Your task to perform on an android device: Open the calendar and show me this week's events? Image 0: 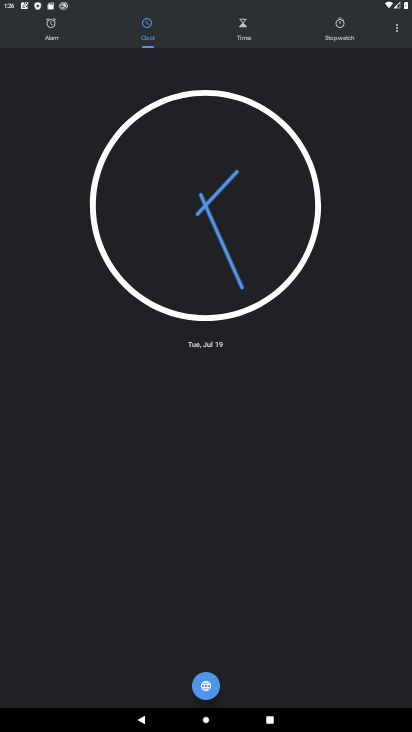
Step 0: press home button
Your task to perform on an android device: Open the calendar and show me this week's events? Image 1: 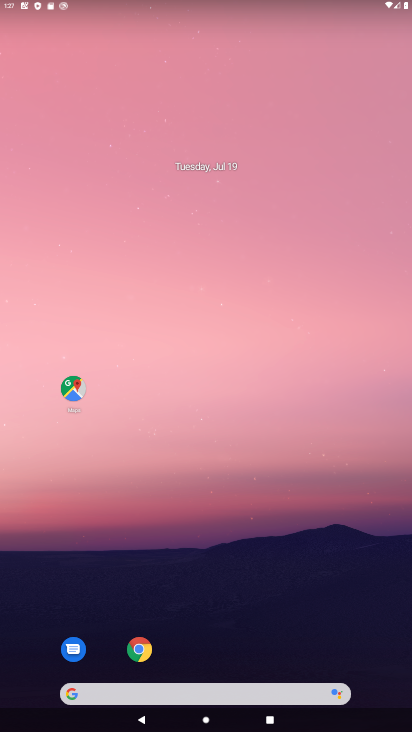
Step 1: drag from (208, 469) to (309, 34)
Your task to perform on an android device: Open the calendar and show me this week's events? Image 2: 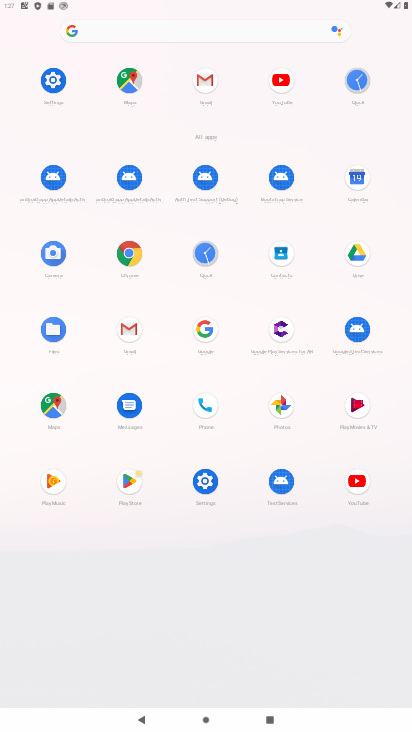
Step 2: click (360, 177)
Your task to perform on an android device: Open the calendar and show me this week's events? Image 3: 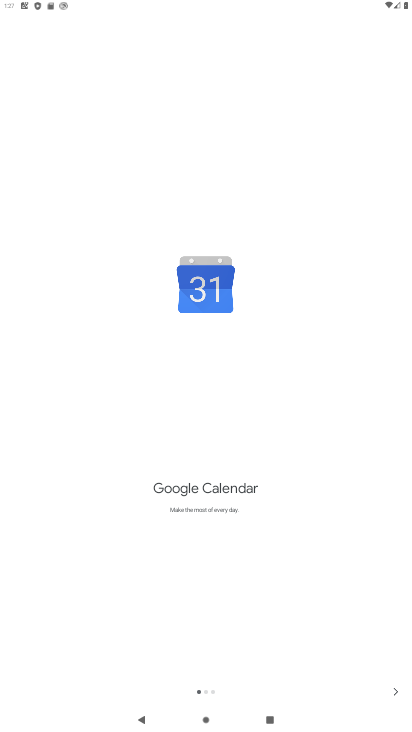
Step 3: click (391, 693)
Your task to perform on an android device: Open the calendar and show me this week's events? Image 4: 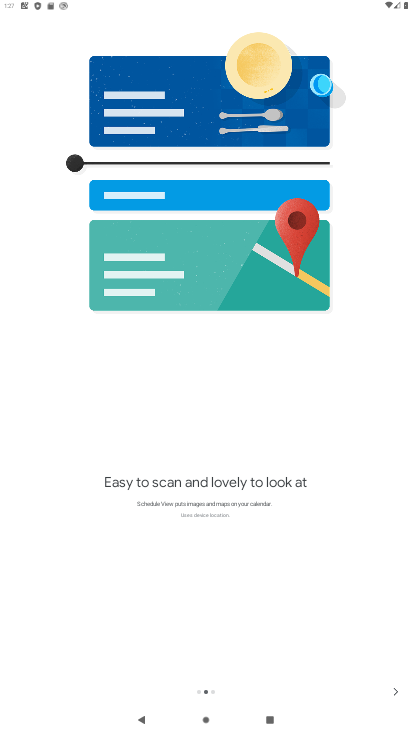
Step 4: click (391, 693)
Your task to perform on an android device: Open the calendar and show me this week's events? Image 5: 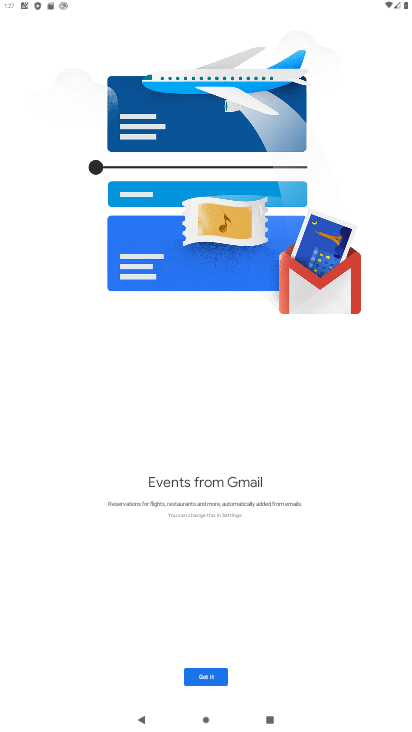
Step 5: click (391, 693)
Your task to perform on an android device: Open the calendar and show me this week's events? Image 6: 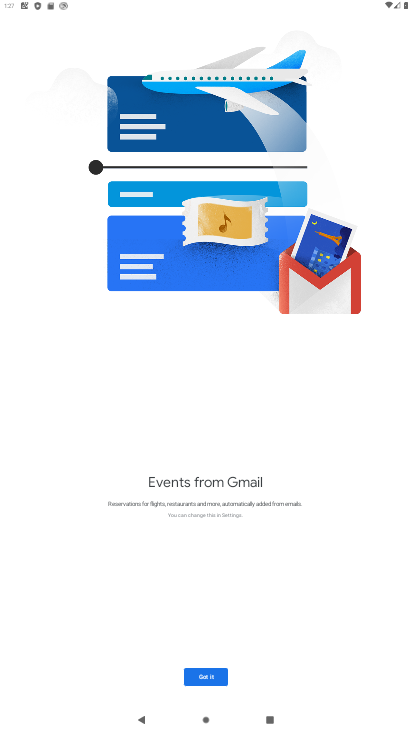
Step 6: click (208, 674)
Your task to perform on an android device: Open the calendar and show me this week's events? Image 7: 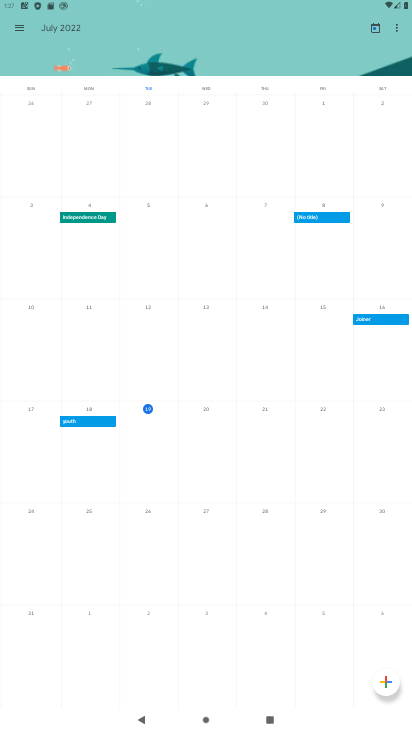
Step 7: task complete